Your task to perform on an android device: Check the news Image 0: 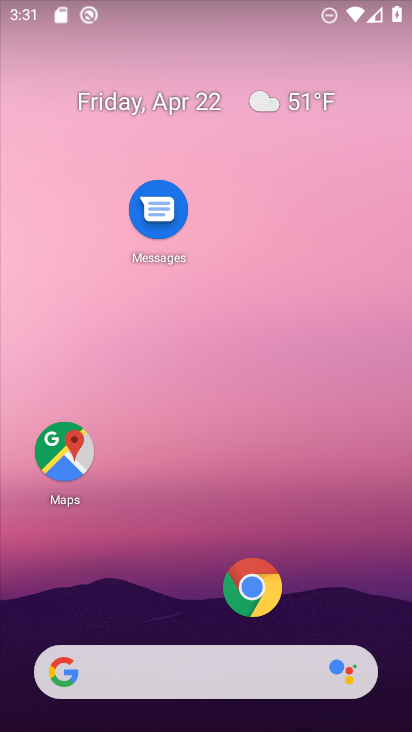
Step 0: drag from (200, 612) to (261, 141)
Your task to perform on an android device: Check the news Image 1: 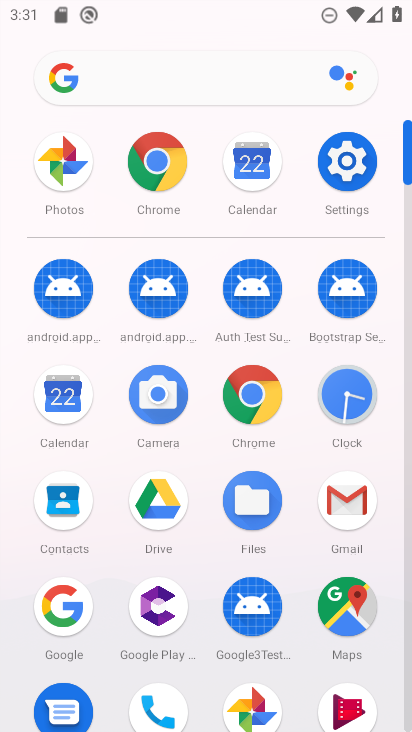
Step 1: click (69, 595)
Your task to perform on an android device: Check the news Image 2: 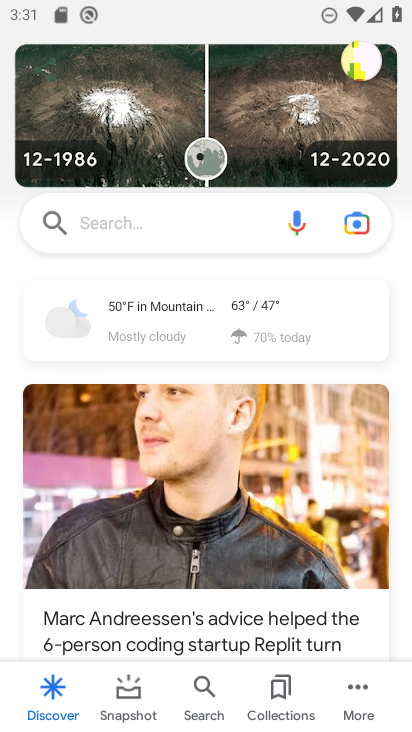
Step 2: task complete